Your task to perform on an android device: turn notification dots off Image 0: 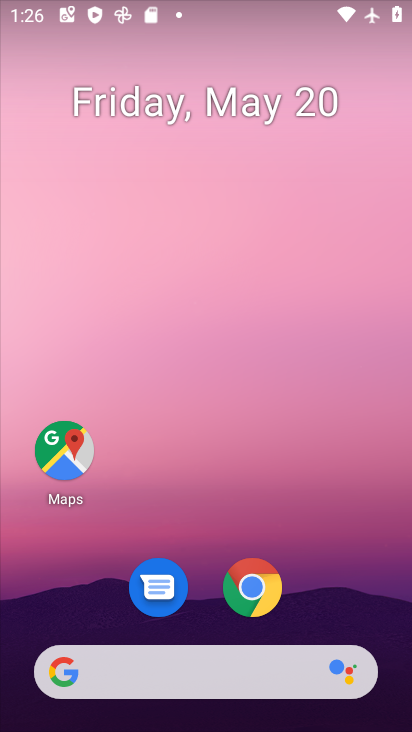
Step 0: drag from (342, 527) to (221, 24)
Your task to perform on an android device: turn notification dots off Image 1: 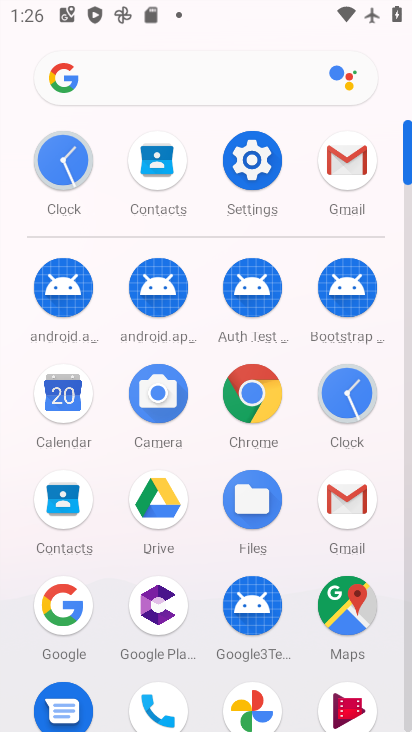
Step 1: click (256, 156)
Your task to perform on an android device: turn notification dots off Image 2: 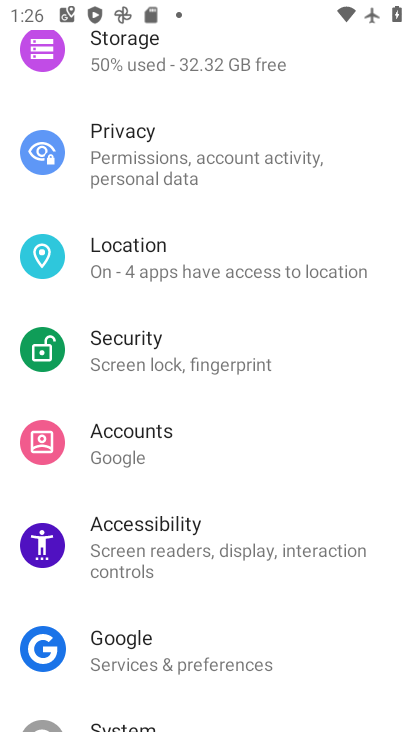
Step 2: drag from (223, 189) to (209, 683)
Your task to perform on an android device: turn notification dots off Image 3: 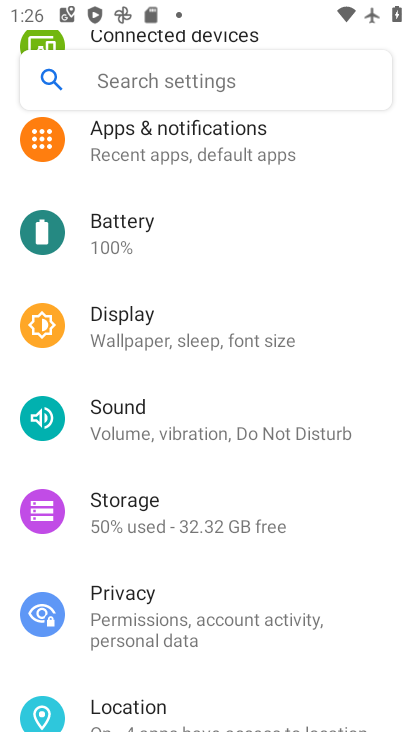
Step 3: drag from (217, 226) to (206, 603)
Your task to perform on an android device: turn notification dots off Image 4: 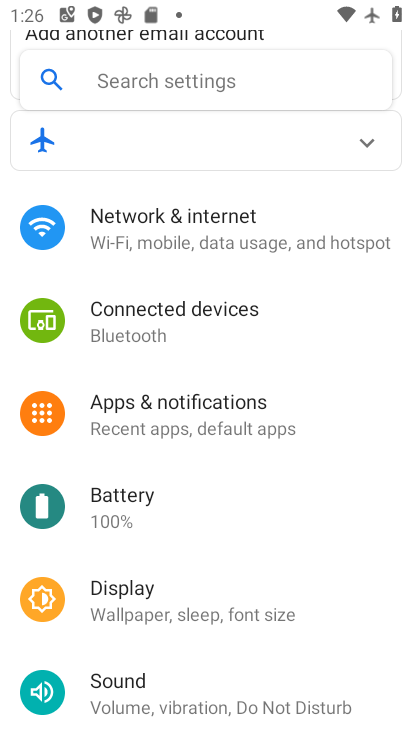
Step 4: click (192, 395)
Your task to perform on an android device: turn notification dots off Image 5: 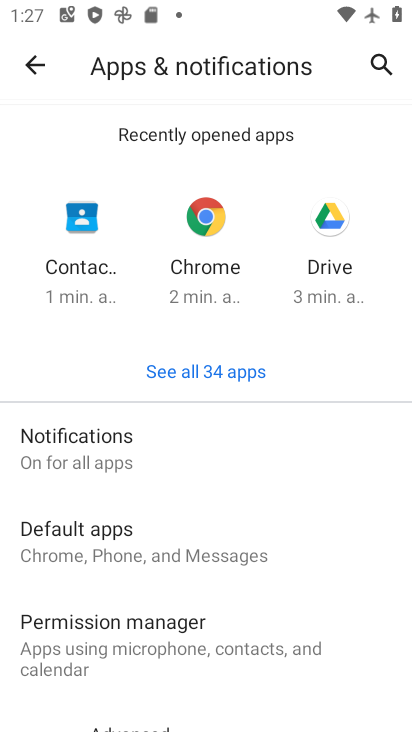
Step 5: click (85, 440)
Your task to perform on an android device: turn notification dots off Image 6: 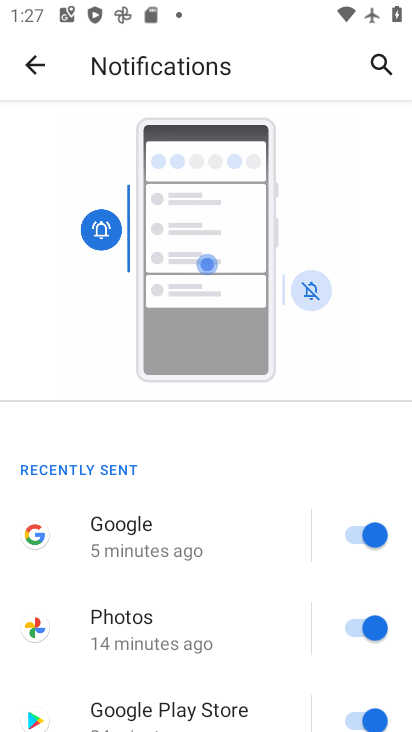
Step 6: drag from (281, 549) to (281, 180)
Your task to perform on an android device: turn notification dots off Image 7: 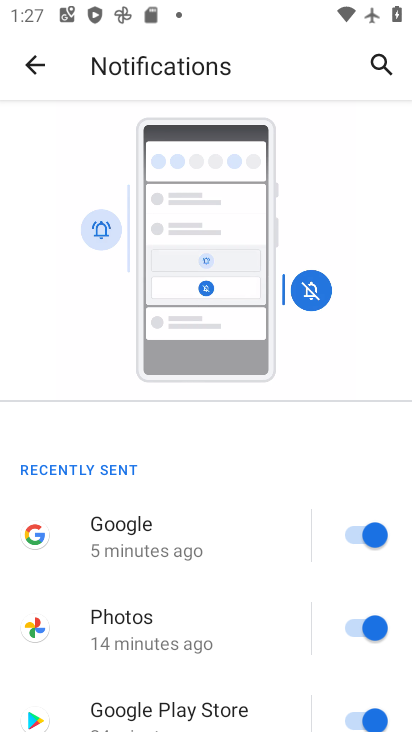
Step 7: drag from (237, 568) to (231, 172)
Your task to perform on an android device: turn notification dots off Image 8: 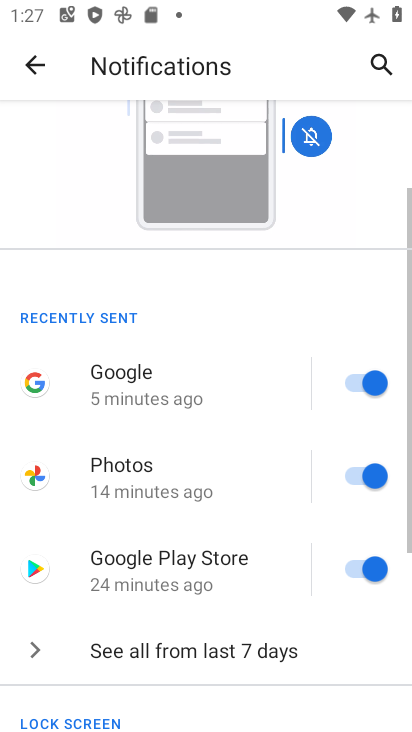
Step 8: drag from (315, 663) to (344, 91)
Your task to perform on an android device: turn notification dots off Image 9: 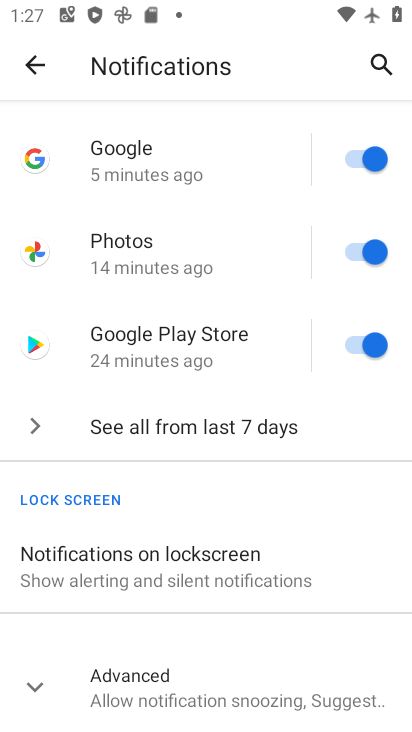
Step 9: click (37, 677)
Your task to perform on an android device: turn notification dots off Image 10: 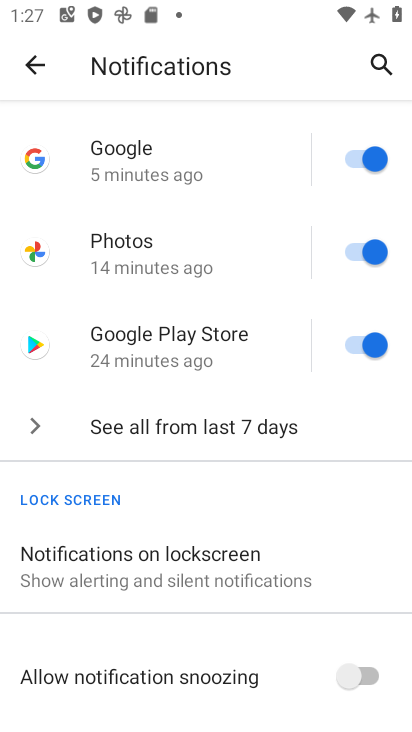
Step 10: task complete